Your task to perform on an android device: find photos in the google photos app Image 0: 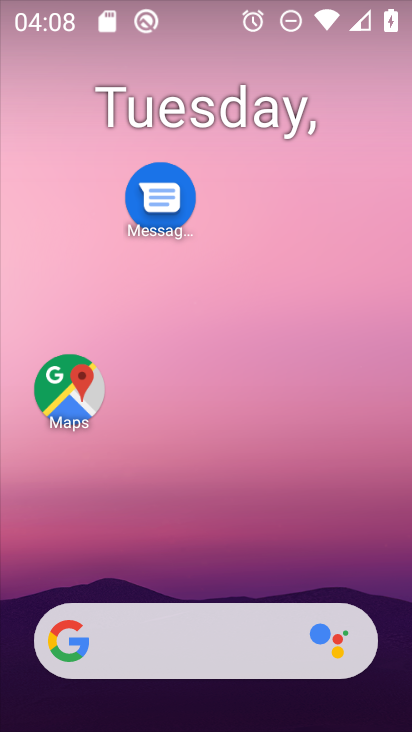
Step 0: drag from (211, 549) to (217, 163)
Your task to perform on an android device: find photos in the google photos app Image 1: 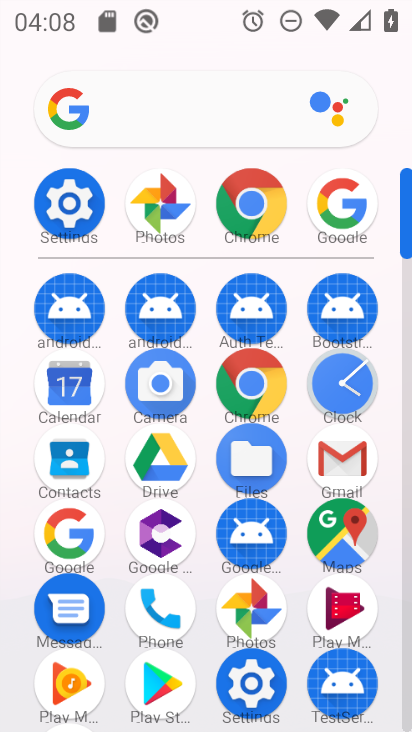
Step 1: click (160, 230)
Your task to perform on an android device: find photos in the google photos app Image 2: 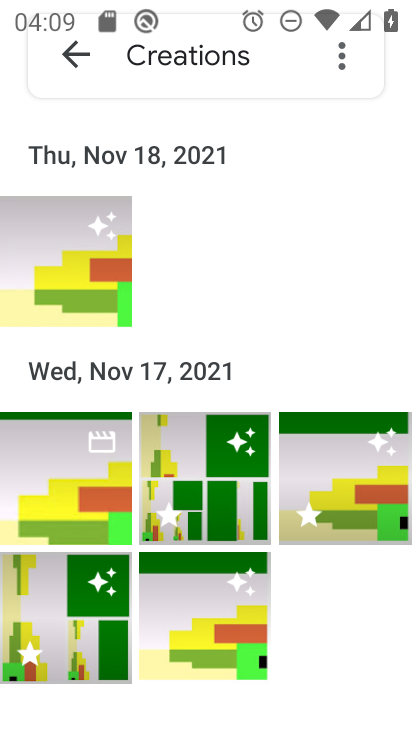
Step 2: click (80, 52)
Your task to perform on an android device: find photos in the google photos app Image 3: 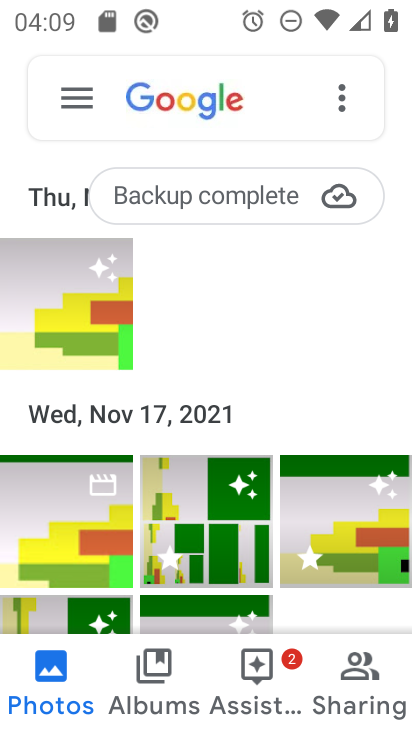
Step 3: click (194, 105)
Your task to perform on an android device: find photos in the google photos app Image 4: 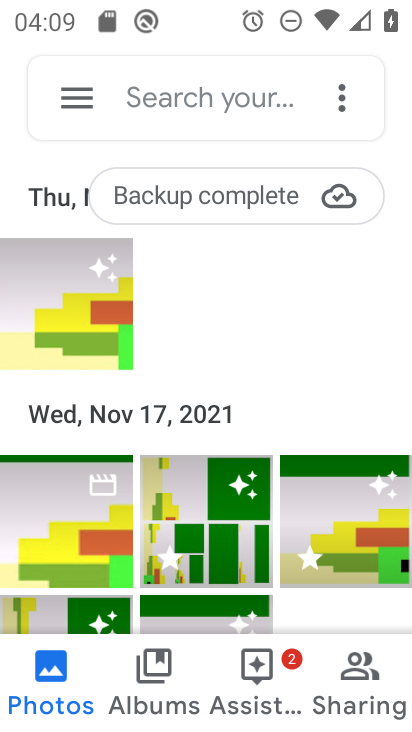
Step 4: click (203, 93)
Your task to perform on an android device: find photos in the google photos app Image 5: 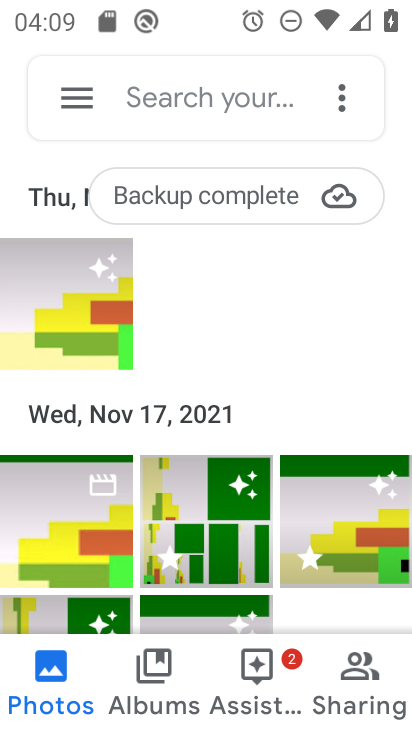
Step 5: click (197, 95)
Your task to perform on an android device: find photos in the google photos app Image 6: 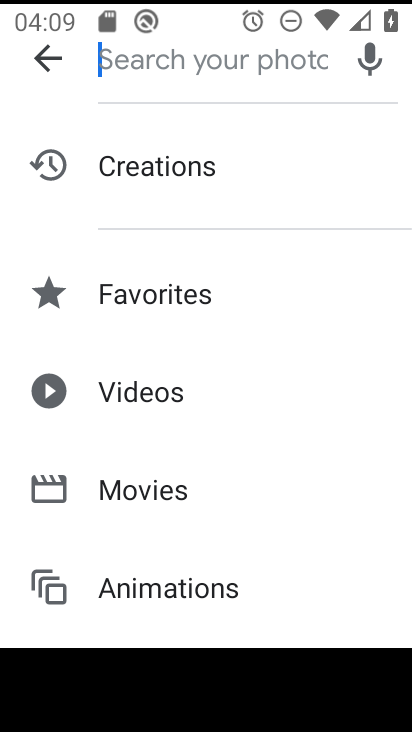
Step 6: type "aaa"
Your task to perform on an android device: find photos in the google photos app Image 7: 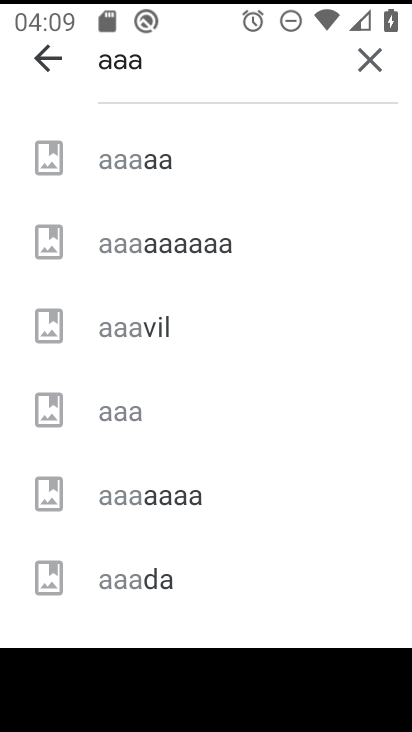
Step 7: click (163, 241)
Your task to perform on an android device: find photos in the google photos app Image 8: 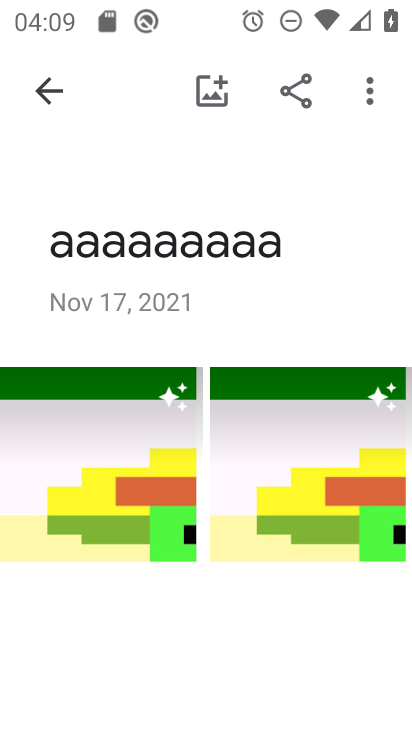
Step 8: task complete